Your task to perform on an android device: See recent photos Image 0: 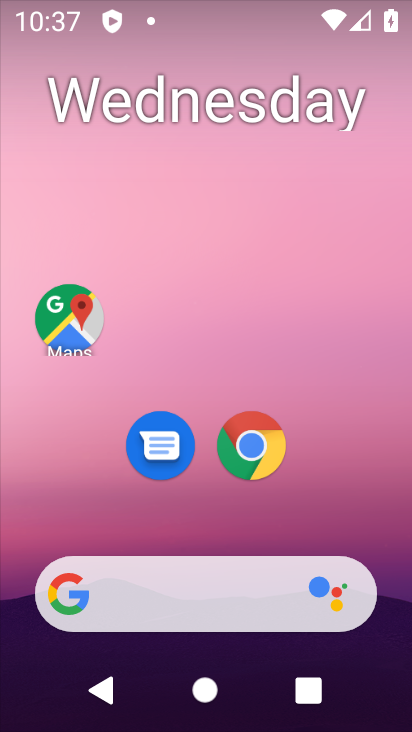
Step 0: drag from (339, 389) to (326, 123)
Your task to perform on an android device: See recent photos Image 1: 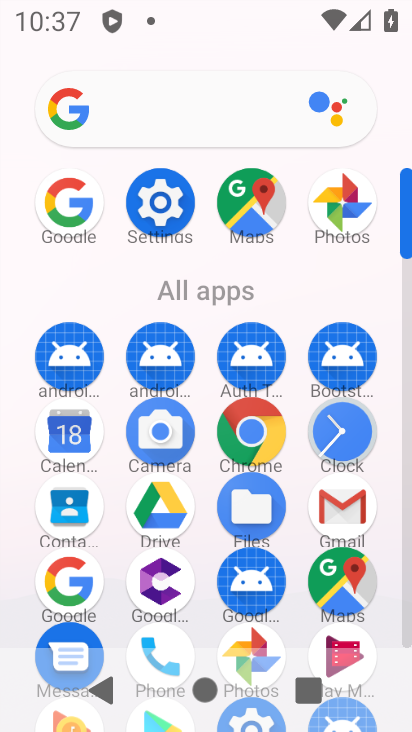
Step 1: click (335, 210)
Your task to perform on an android device: See recent photos Image 2: 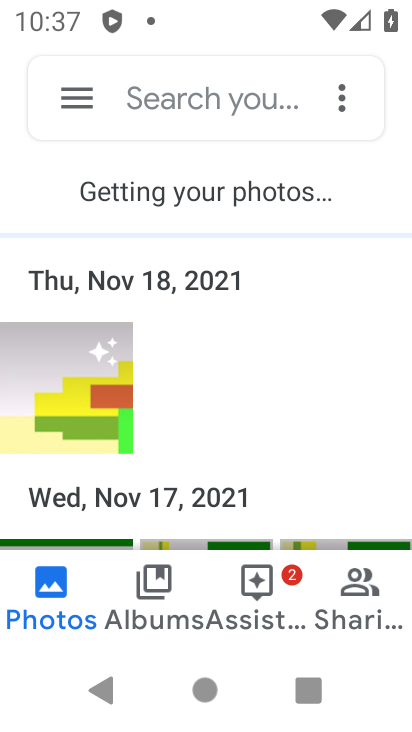
Step 2: task complete